Your task to perform on an android device: Go to calendar. Show me events next week Image 0: 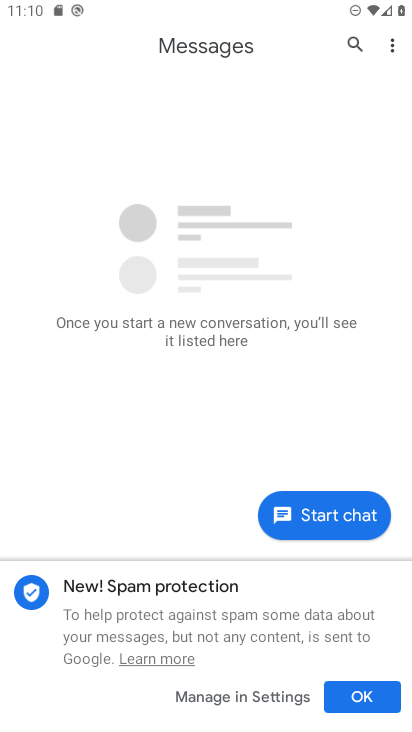
Step 0: press home button
Your task to perform on an android device: Go to calendar. Show me events next week Image 1: 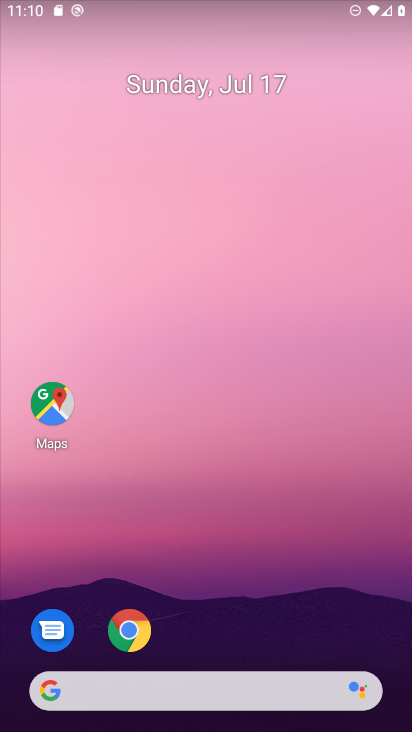
Step 1: drag from (185, 372) to (184, 329)
Your task to perform on an android device: Go to calendar. Show me events next week Image 2: 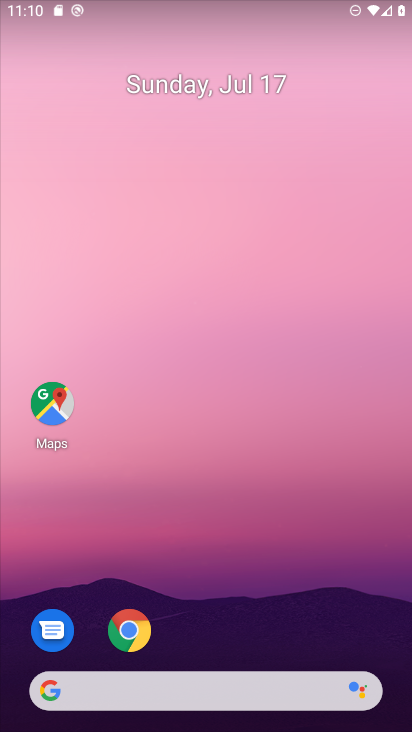
Step 2: drag from (189, 522) to (186, 166)
Your task to perform on an android device: Go to calendar. Show me events next week Image 3: 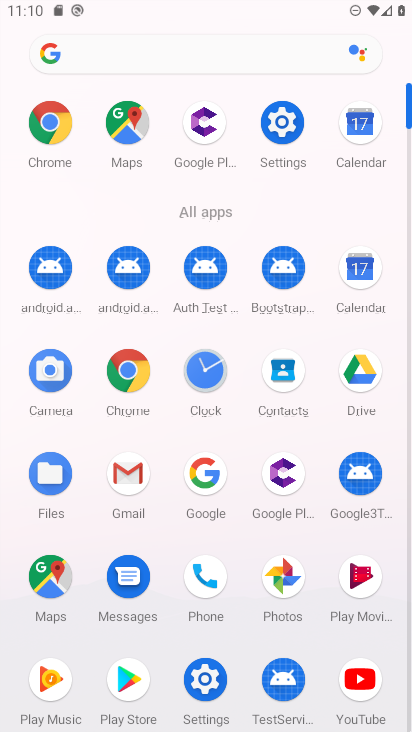
Step 3: click (362, 296)
Your task to perform on an android device: Go to calendar. Show me events next week Image 4: 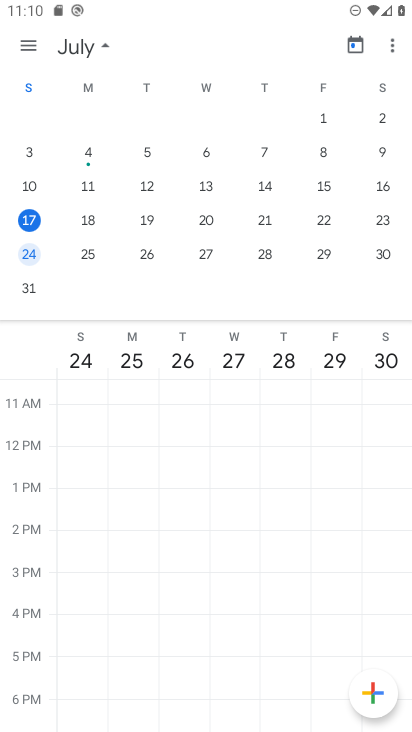
Step 4: task complete